Your task to perform on an android device: see sites visited before in the chrome app Image 0: 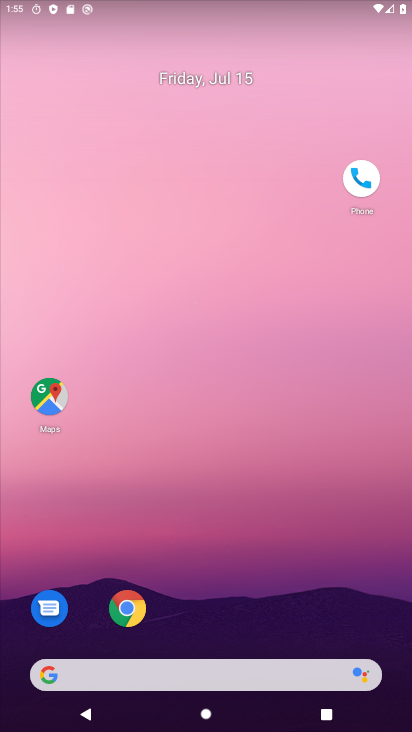
Step 0: drag from (204, 597) to (257, 82)
Your task to perform on an android device: see sites visited before in the chrome app Image 1: 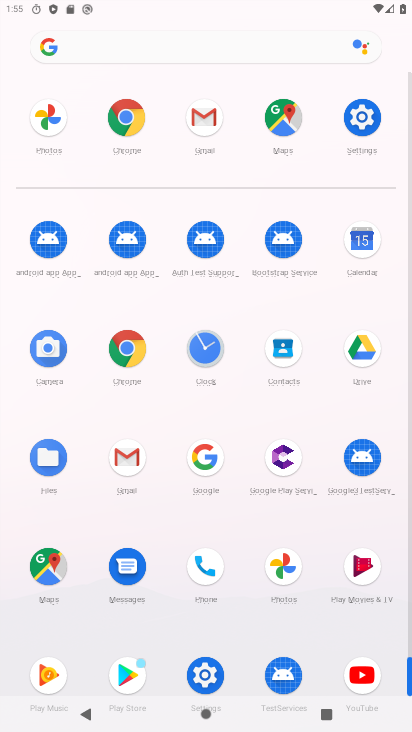
Step 1: click (108, 348)
Your task to perform on an android device: see sites visited before in the chrome app Image 2: 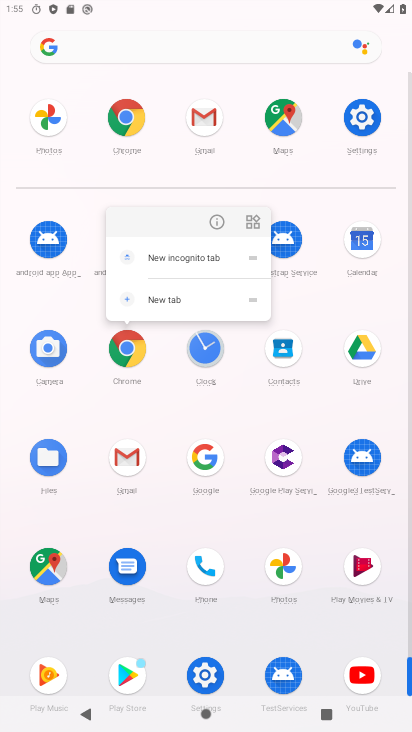
Step 2: click (204, 217)
Your task to perform on an android device: see sites visited before in the chrome app Image 3: 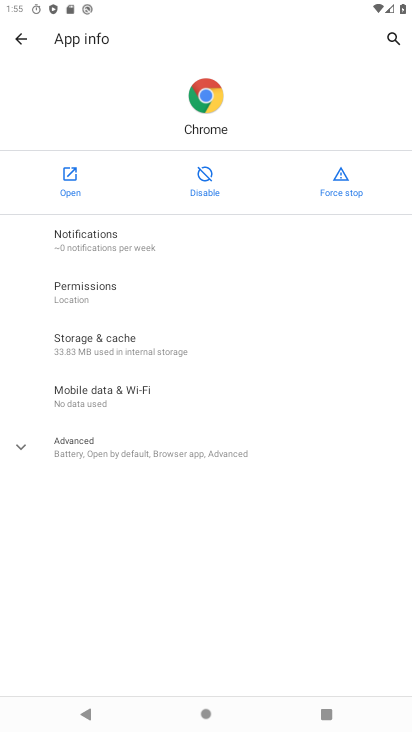
Step 3: click (69, 168)
Your task to perform on an android device: see sites visited before in the chrome app Image 4: 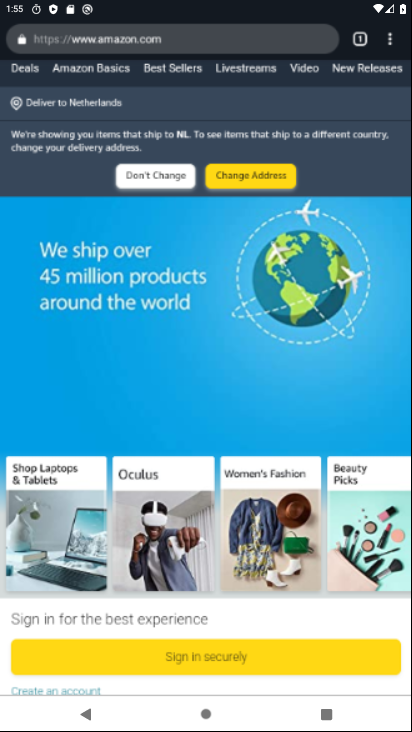
Step 4: task complete